Your task to perform on an android device: turn pop-ups on in chrome Image 0: 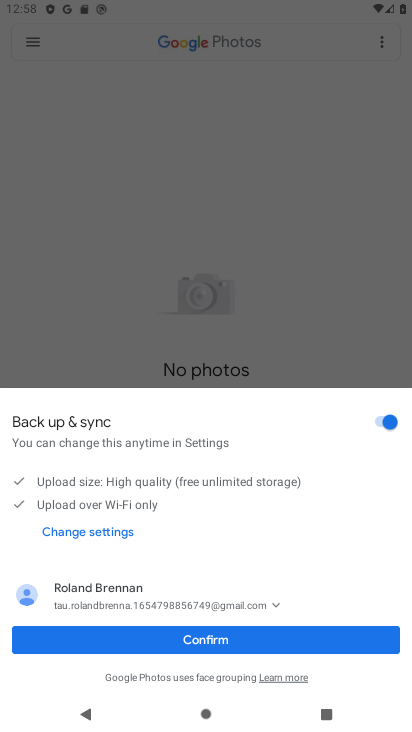
Step 0: press home button
Your task to perform on an android device: turn pop-ups on in chrome Image 1: 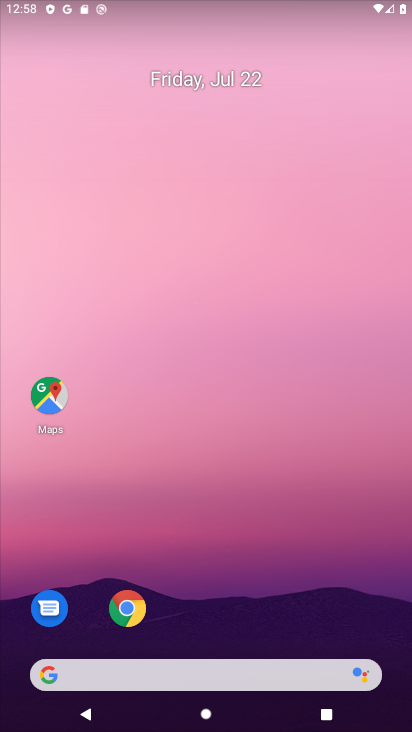
Step 1: click (133, 610)
Your task to perform on an android device: turn pop-ups on in chrome Image 2: 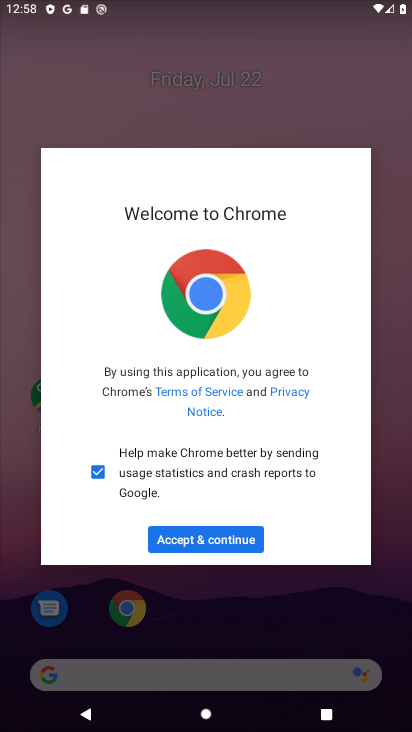
Step 2: click (205, 544)
Your task to perform on an android device: turn pop-ups on in chrome Image 3: 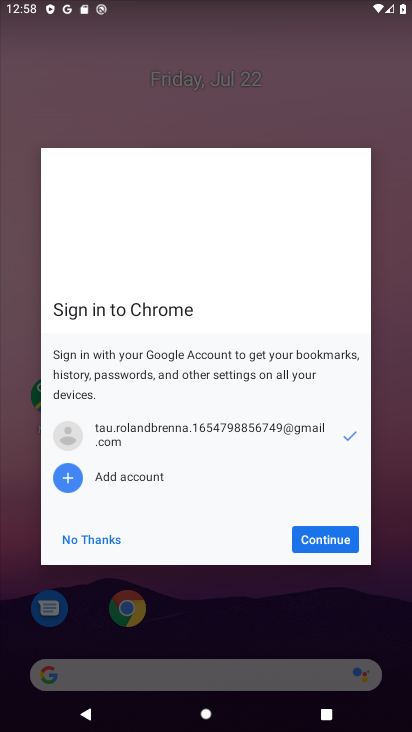
Step 3: click (316, 535)
Your task to perform on an android device: turn pop-ups on in chrome Image 4: 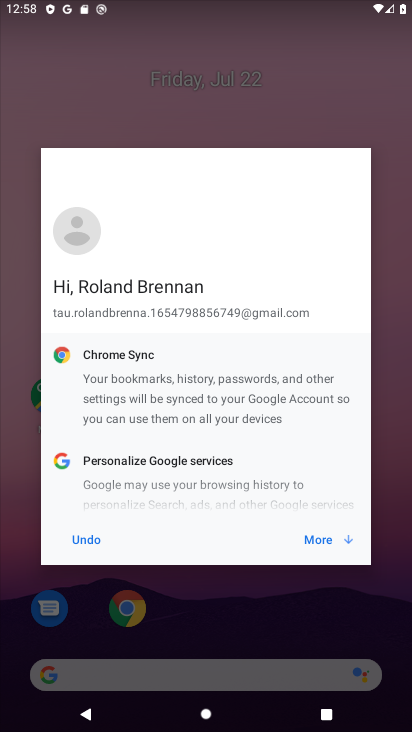
Step 4: click (316, 535)
Your task to perform on an android device: turn pop-ups on in chrome Image 5: 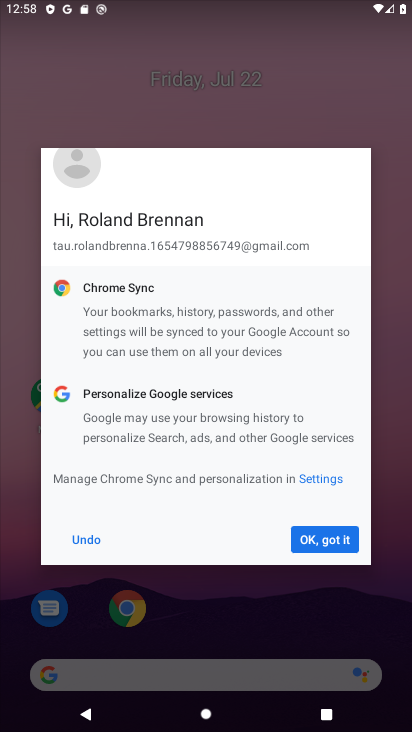
Step 5: click (316, 535)
Your task to perform on an android device: turn pop-ups on in chrome Image 6: 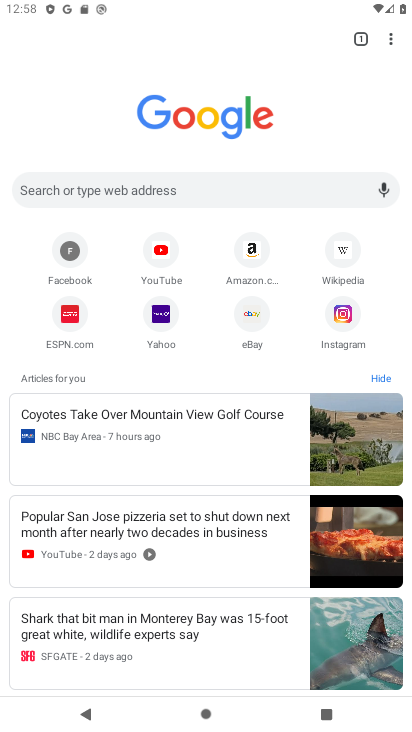
Step 6: click (390, 38)
Your task to perform on an android device: turn pop-ups on in chrome Image 7: 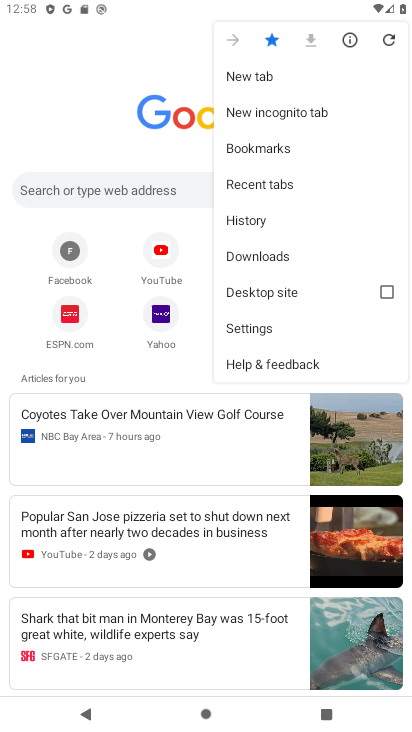
Step 7: click (258, 320)
Your task to perform on an android device: turn pop-ups on in chrome Image 8: 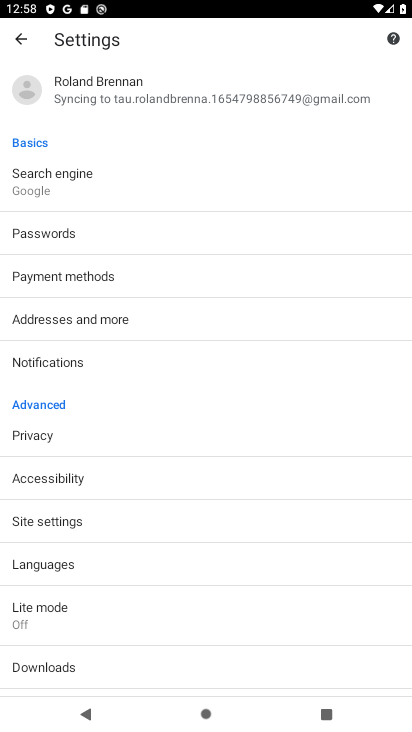
Step 8: click (75, 511)
Your task to perform on an android device: turn pop-ups on in chrome Image 9: 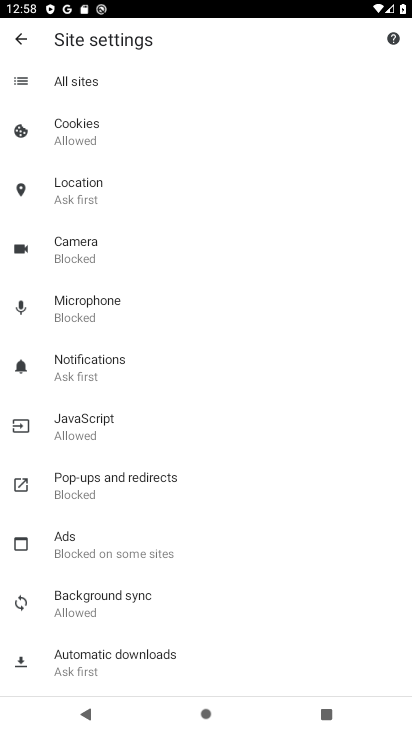
Step 9: click (168, 472)
Your task to perform on an android device: turn pop-ups on in chrome Image 10: 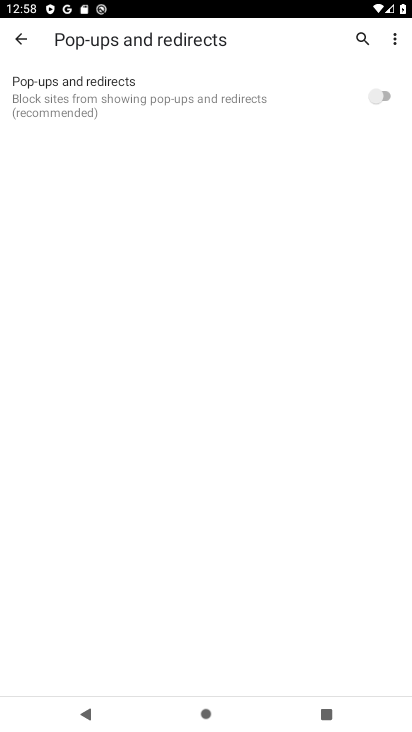
Step 10: click (383, 94)
Your task to perform on an android device: turn pop-ups on in chrome Image 11: 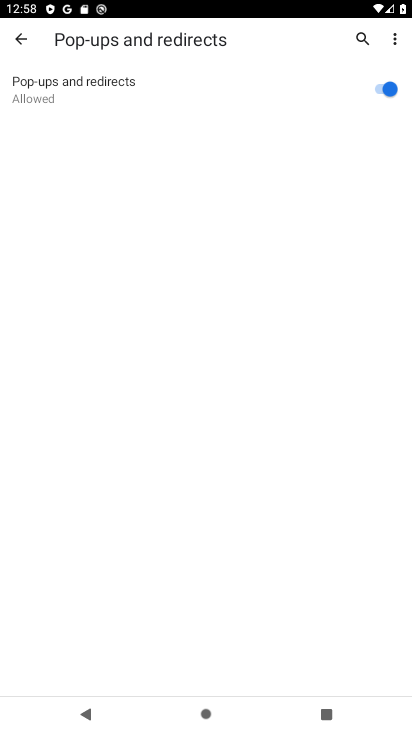
Step 11: task complete